Your task to perform on an android device: What is the recent news? Image 0: 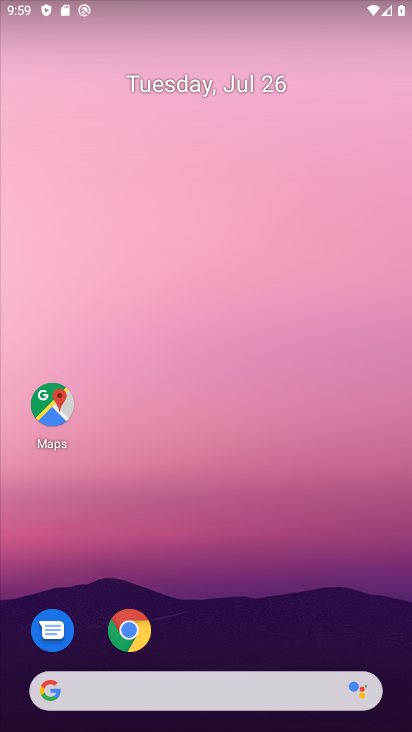
Step 0: drag from (4, 335) to (402, 348)
Your task to perform on an android device: What is the recent news? Image 1: 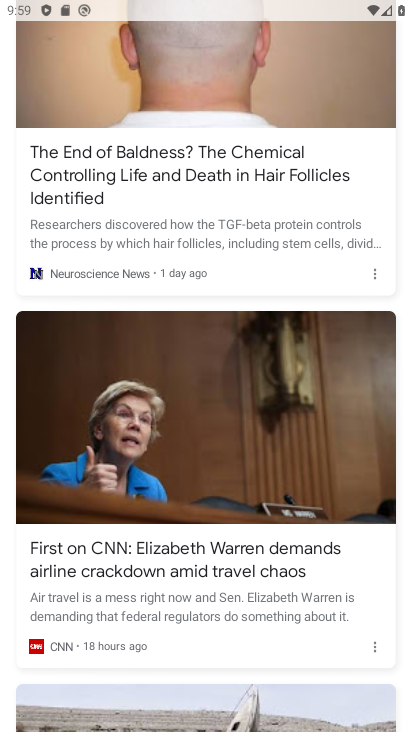
Step 1: task complete